Your task to perform on an android device: open app "Mercado Libre" (install if not already installed) and enter user name: "tolerating@yahoo.com" and password: "Kepler" Image 0: 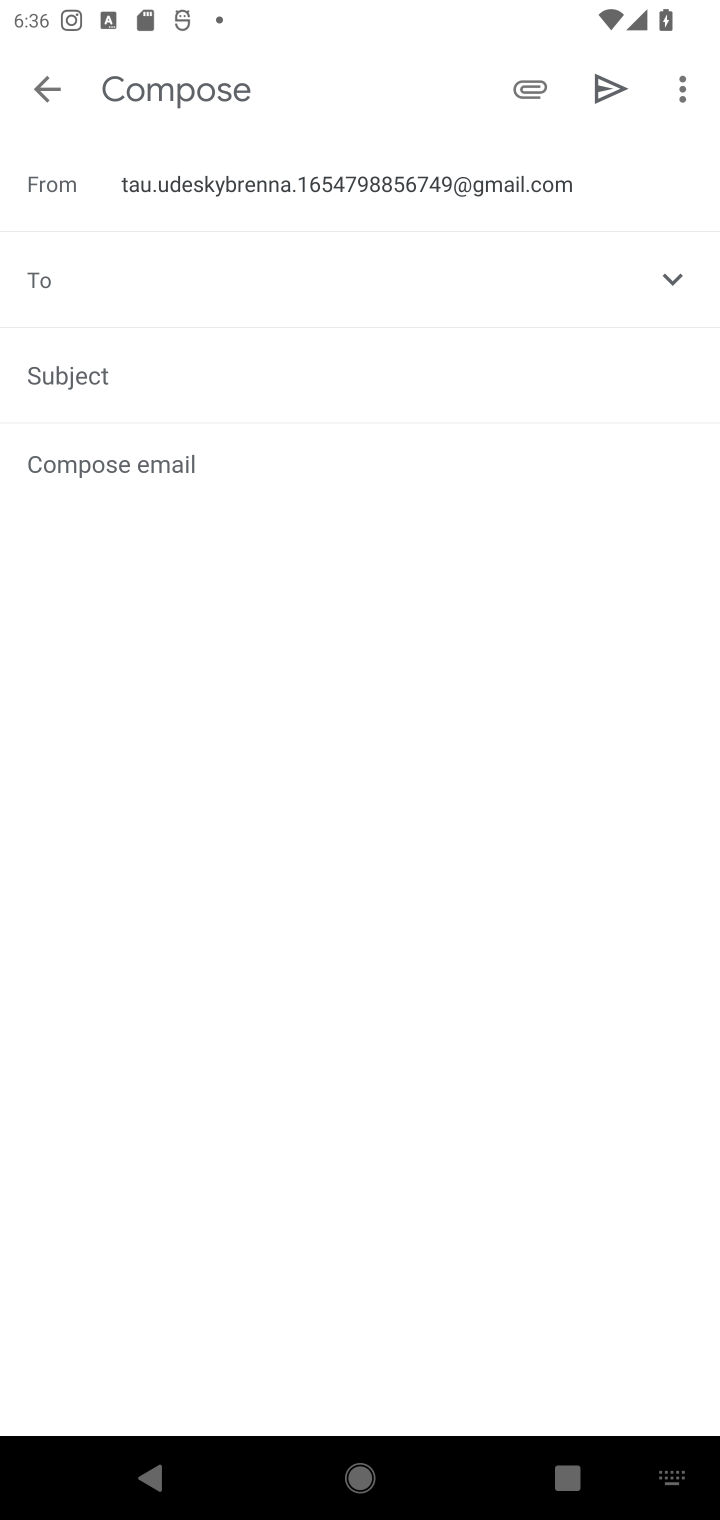
Step 0: press home button
Your task to perform on an android device: open app "Mercado Libre" (install if not already installed) and enter user name: "tolerating@yahoo.com" and password: "Kepler" Image 1: 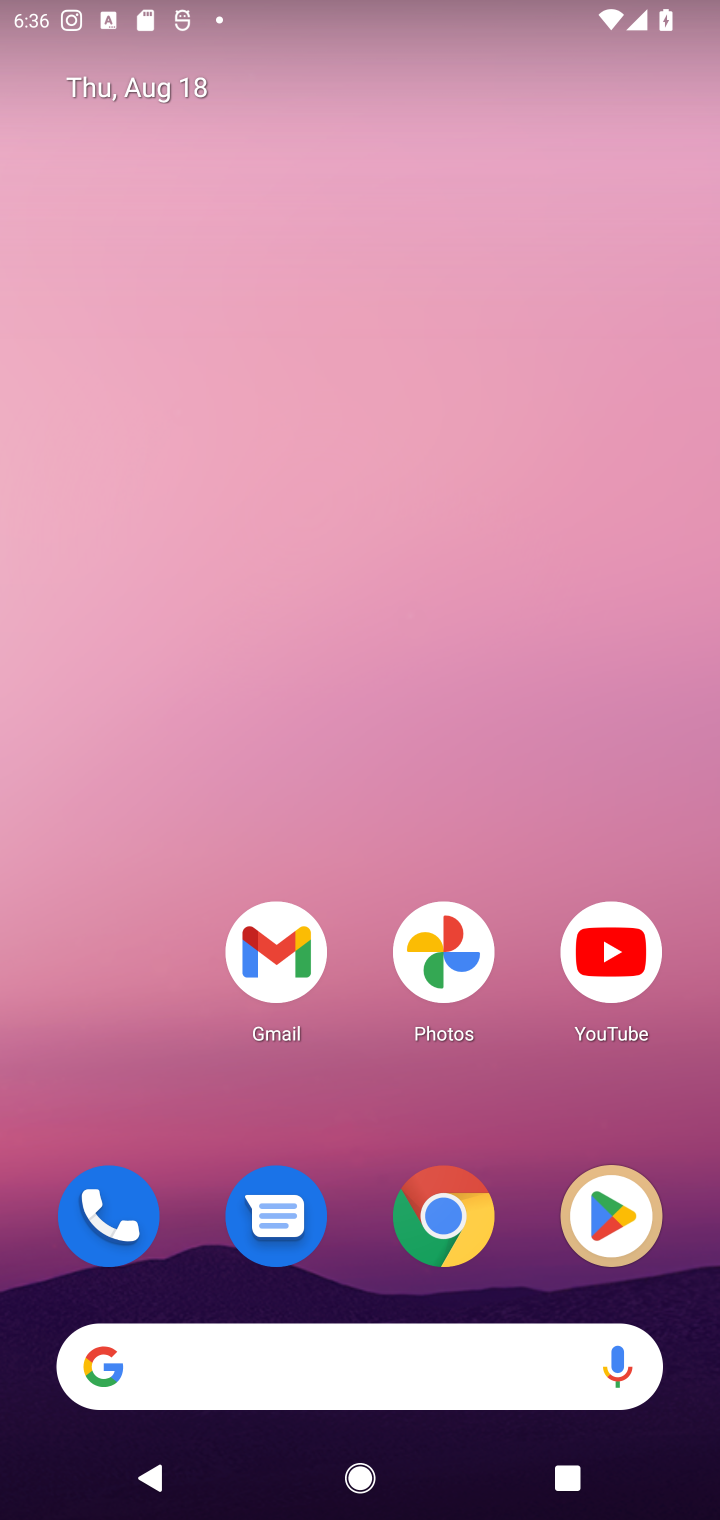
Step 1: click (578, 1189)
Your task to perform on an android device: open app "Mercado Libre" (install if not already installed) and enter user name: "tolerating@yahoo.com" and password: "Kepler" Image 2: 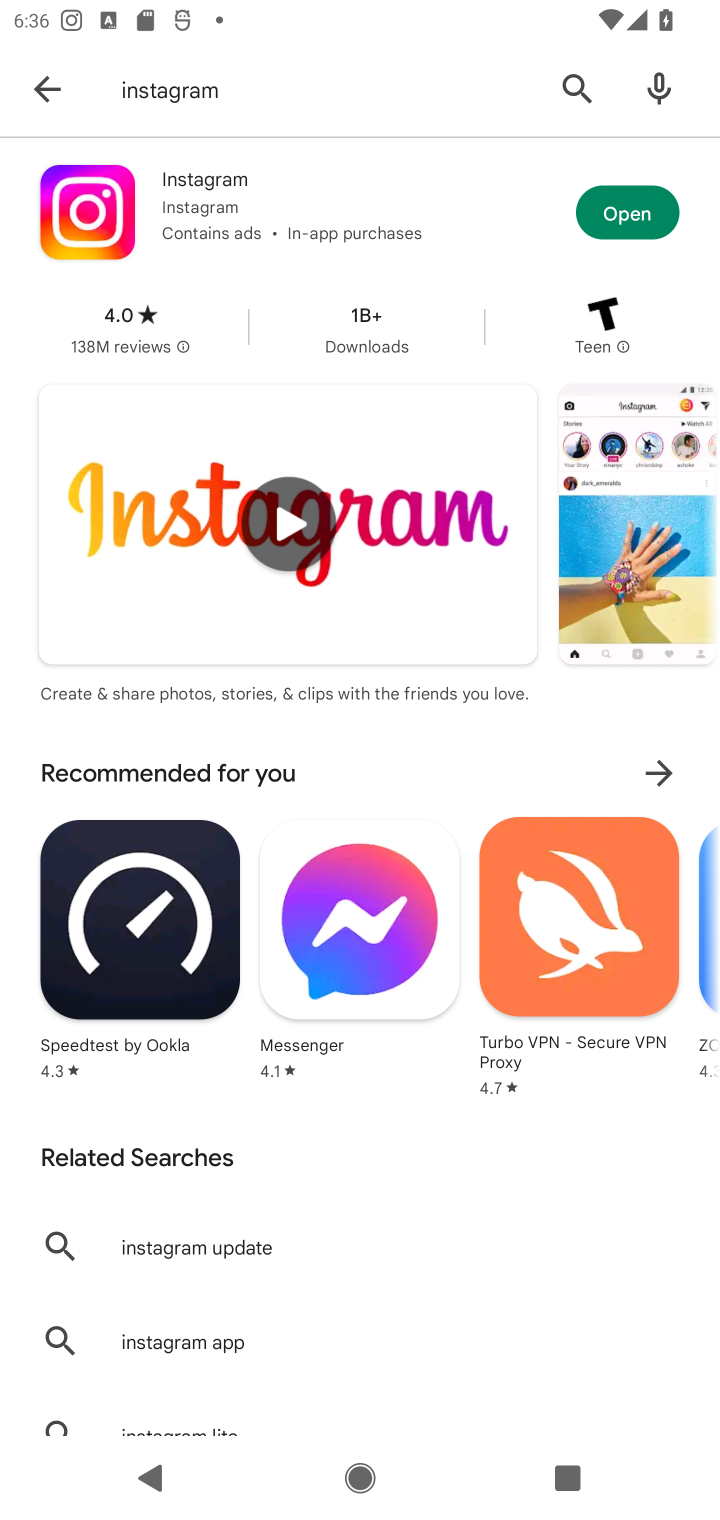
Step 2: click (609, 78)
Your task to perform on an android device: open app "Mercado Libre" (install if not already installed) and enter user name: "tolerating@yahoo.com" and password: "Kepler" Image 3: 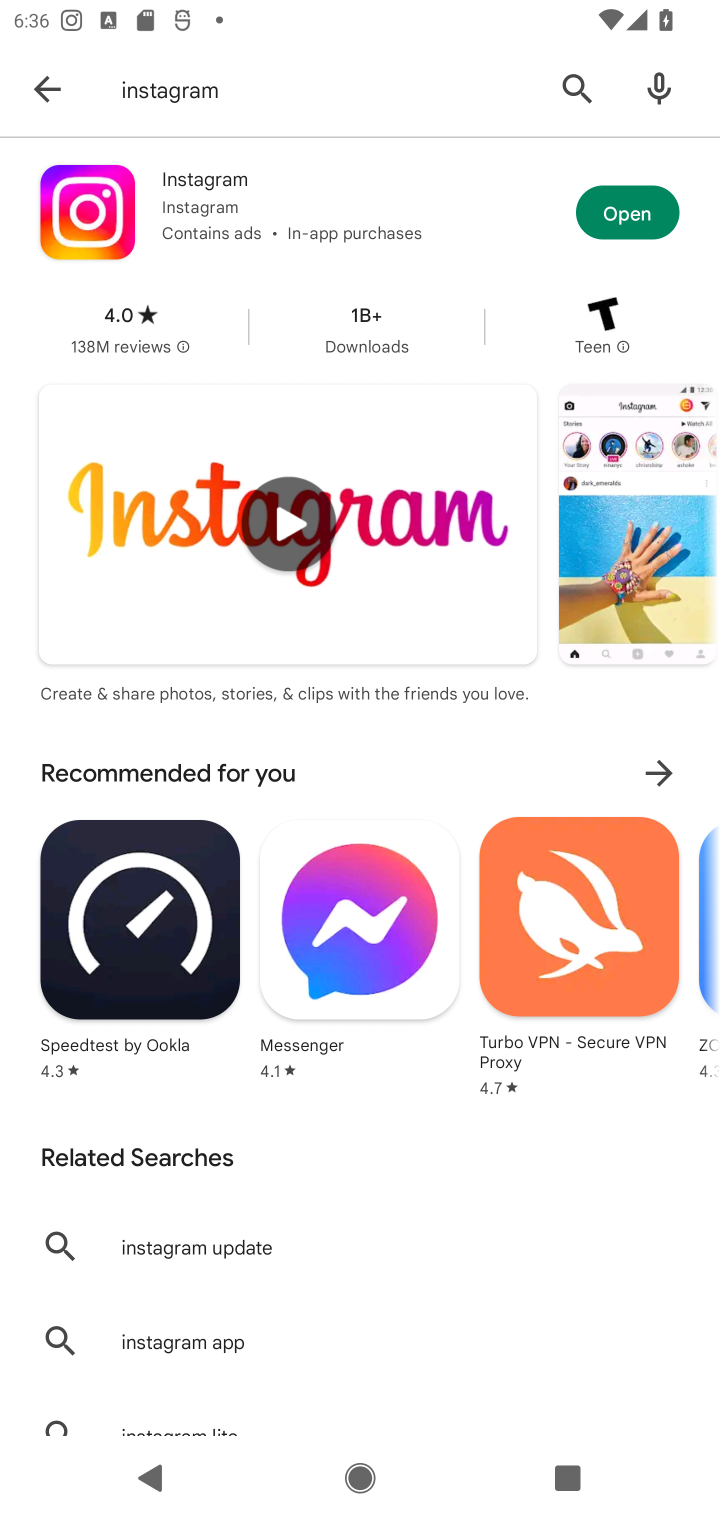
Step 3: click (577, 93)
Your task to perform on an android device: open app "Mercado Libre" (install if not already installed) and enter user name: "tolerating@yahoo.com" and password: "Kepler" Image 4: 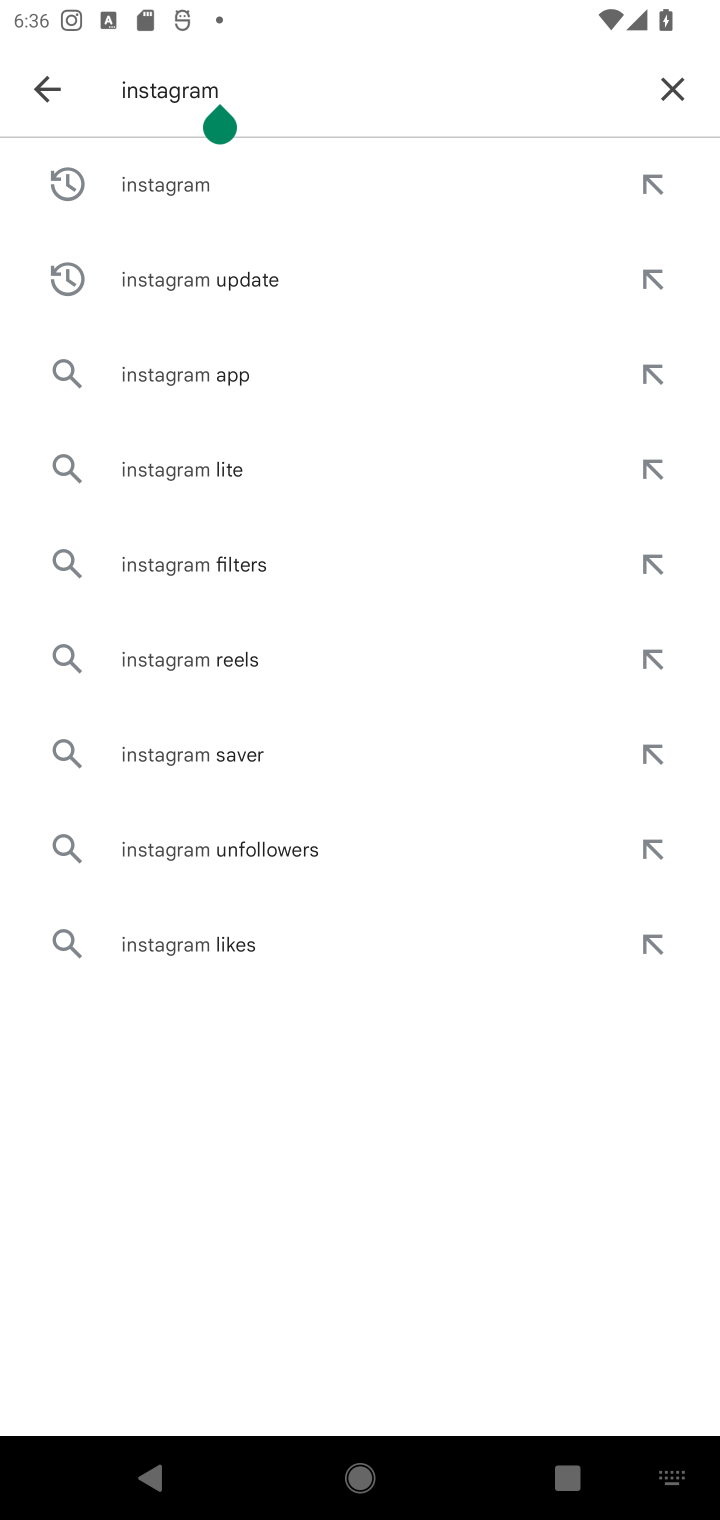
Step 4: click (681, 95)
Your task to perform on an android device: open app "Mercado Libre" (install if not already installed) and enter user name: "tolerating@yahoo.com" and password: "Kepler" Image 5: 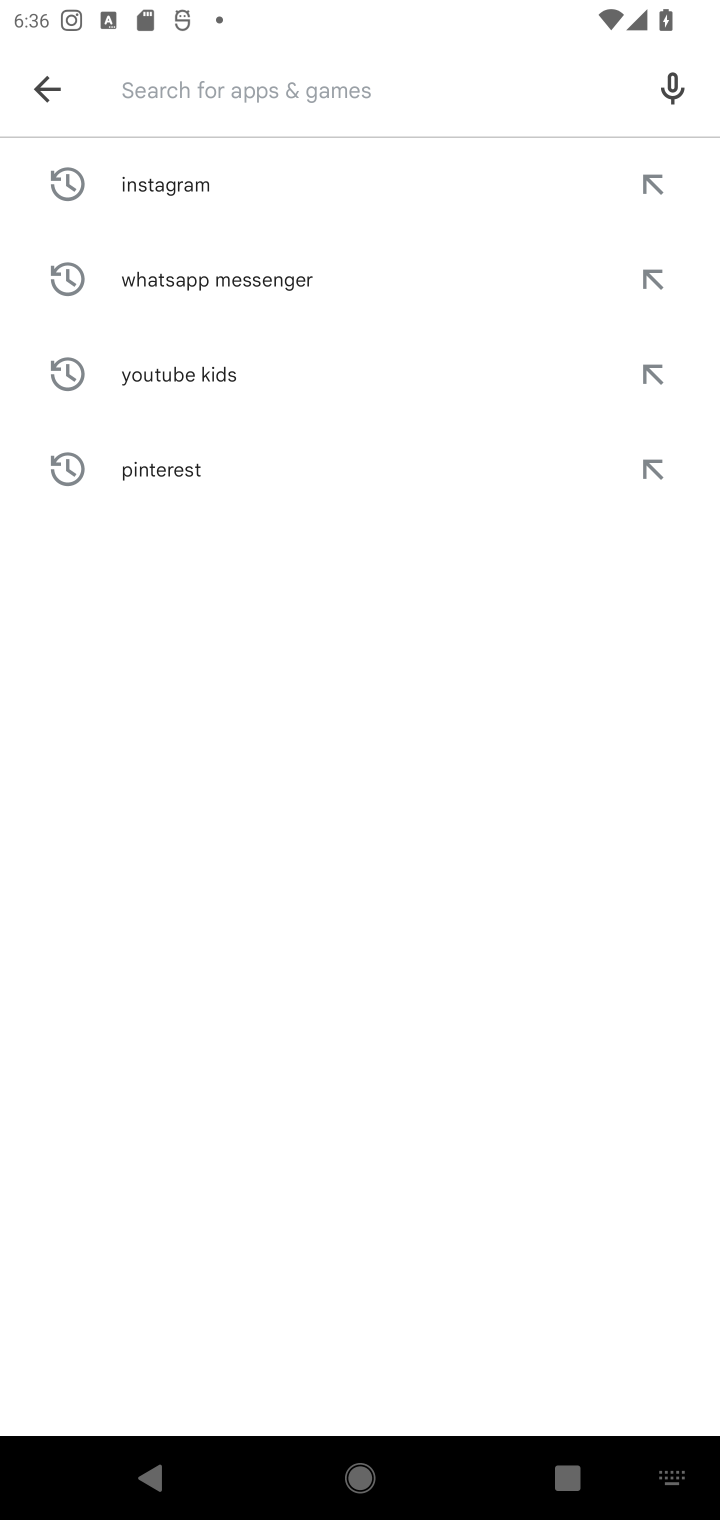
Step 5: type "Mercado Libre"
Your task to perform on an android device: open app "Mercado Libre" (install if not already installed) and enter user name: "tolerating@yahoo.com" and password: "Kepler" Image 6: 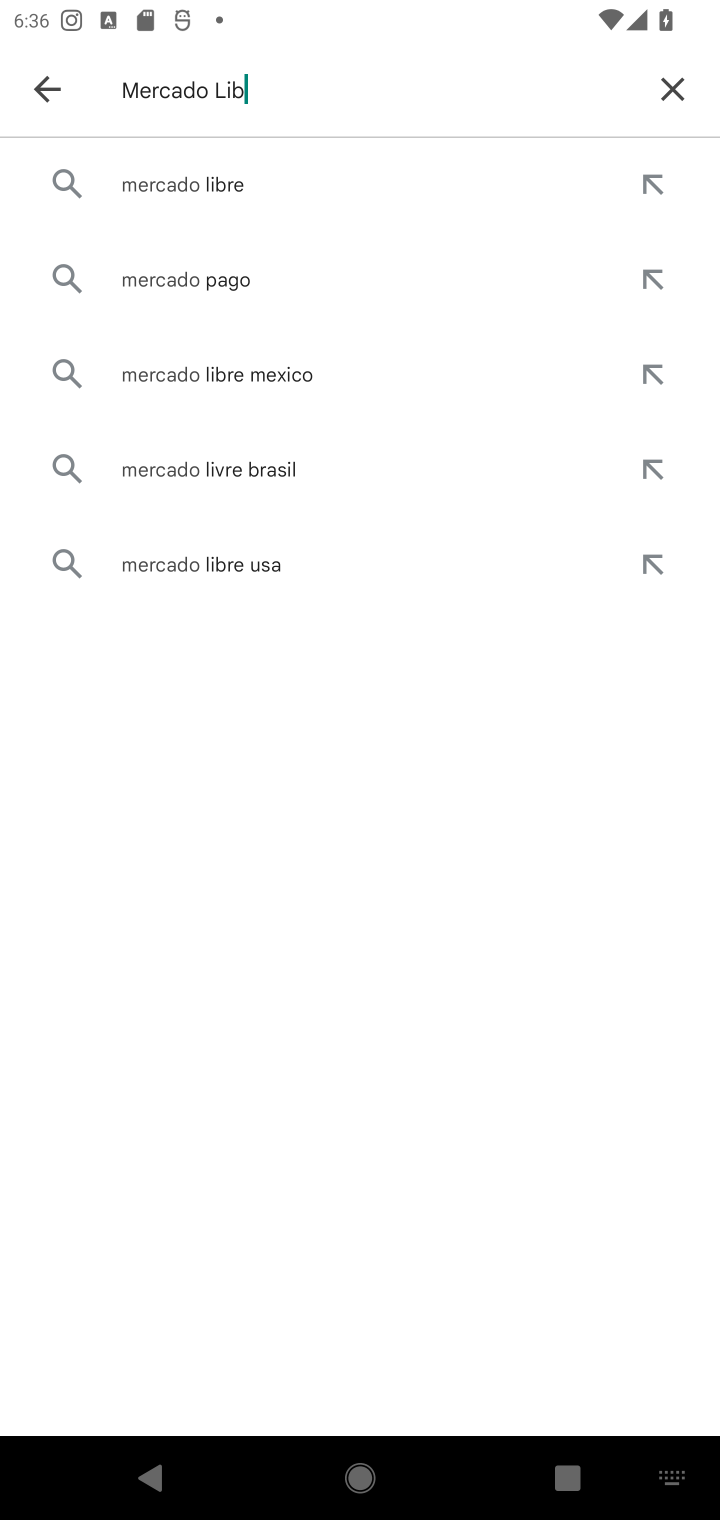
Step 6: type ""
Your task to perform on an android device: open app "Mercado Libre" (install if not already installed) and enter user name: "tolerating@yahoo.com" and password: "Kepler" Image 7: 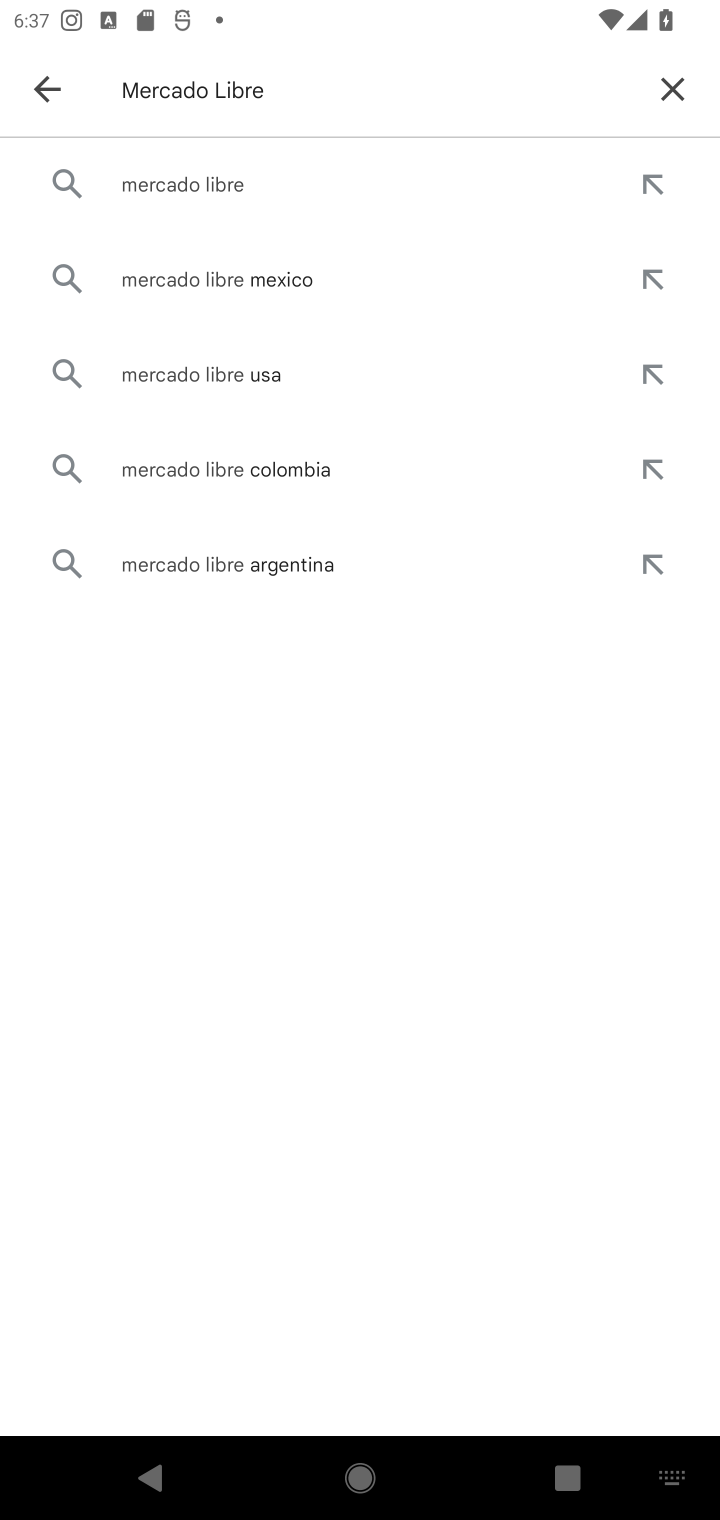
Step 7: click (273, 193)
Your task to perform on an android device: open app "Mercado Libre" (install if not already installed) and enter user name: "tolerating@yahoo.com" and password: "Kepler" Image 8: 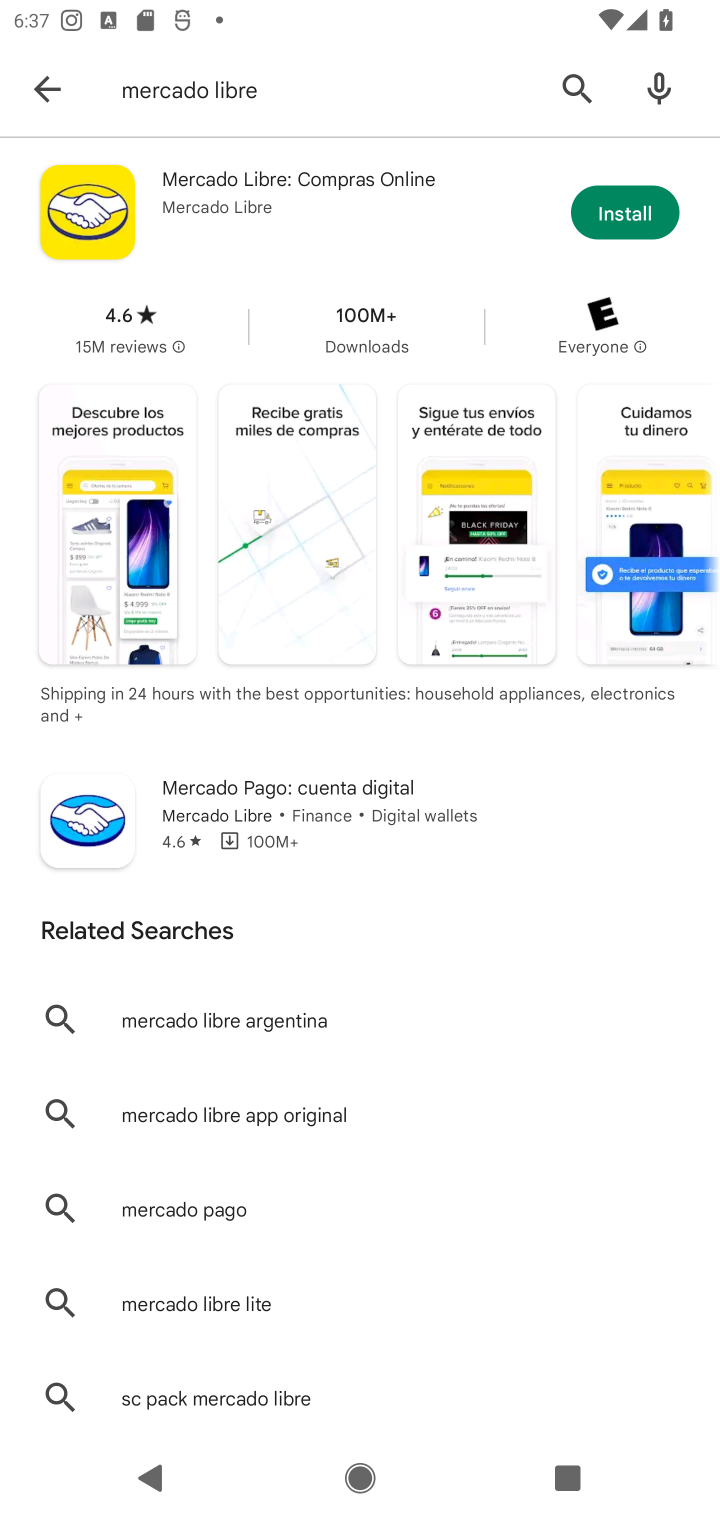
Step 8: click (628, 213)
Your task to perform on an android device: open app "Mercado Libre" (install if not already installed) and enter user name: "tolerating@yahoo.com" and password: "Kepler" Image 9: 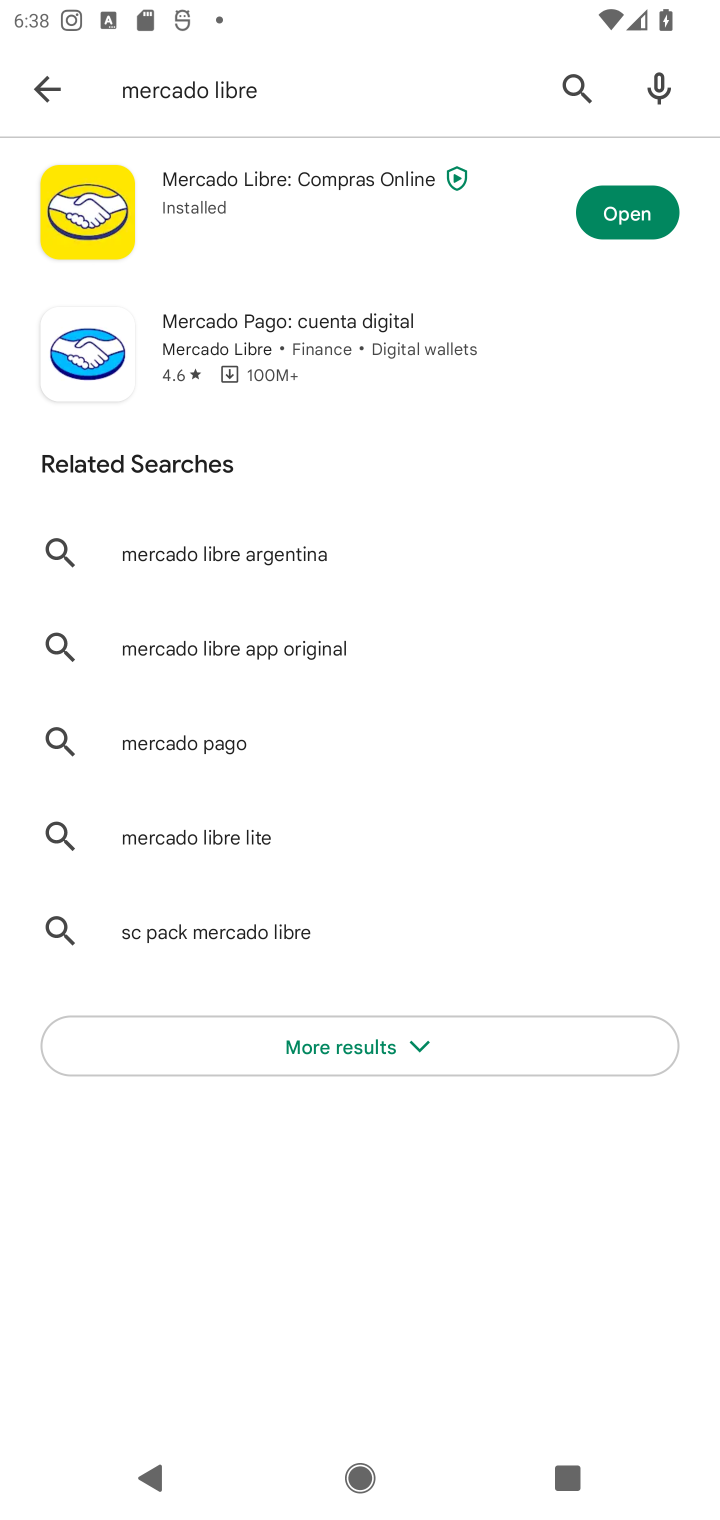
Step 9: click (604, 219)
Your task to perform on an android device: open app "Mercado Libre" (install if not already installed) and enter user name: "tolerating@yahoo.com" and password: "Kepler" Image 10: 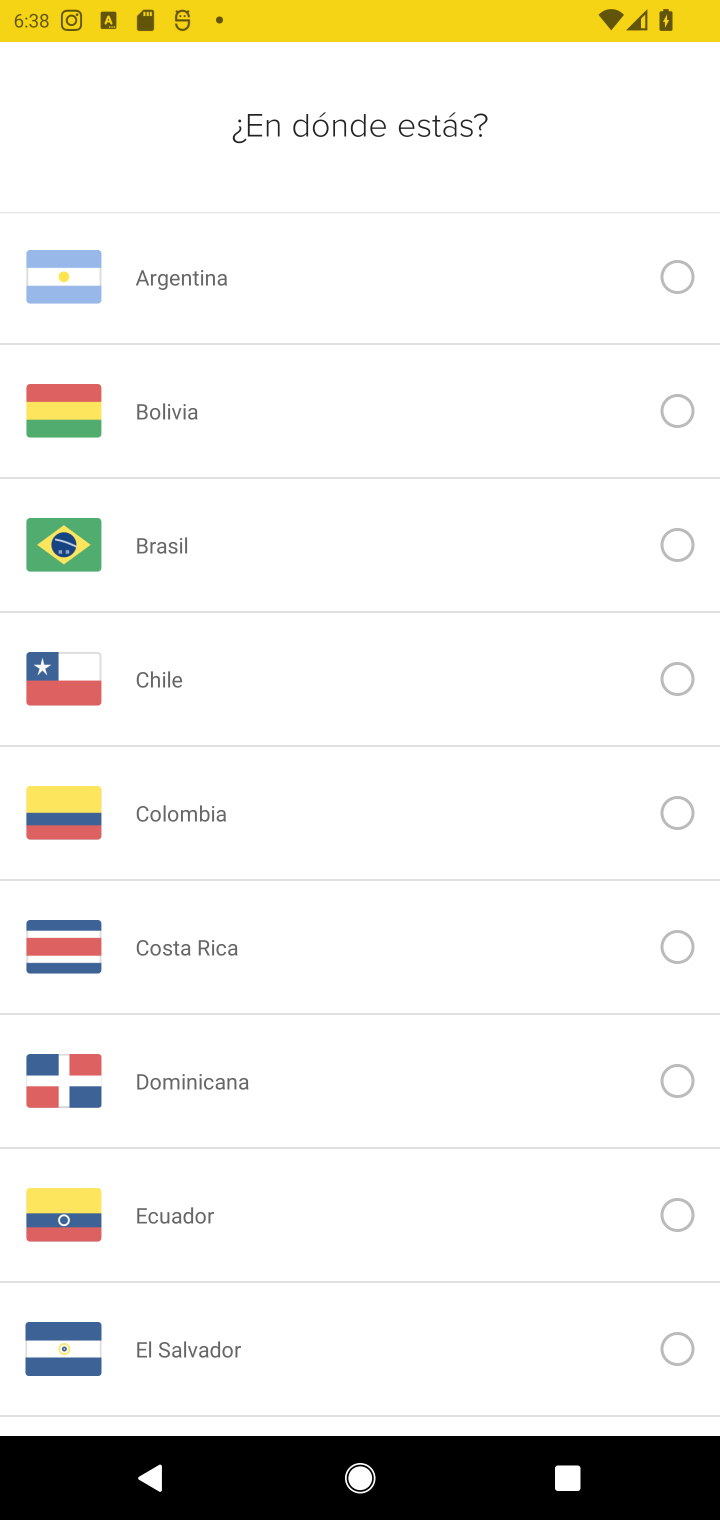
Step 10: task complete